Your task to perform on an android device: When is my next meeting? Image 0: 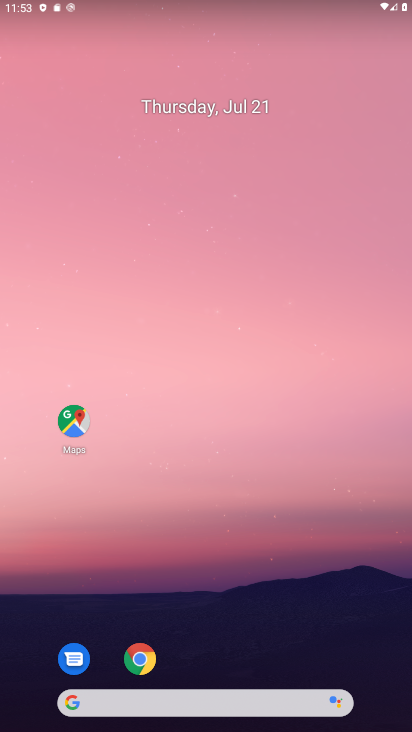
Step 0: drag from (208, 675) to (208, 174)
Your task to perform on an android device: When is my next meeting? Image 1: 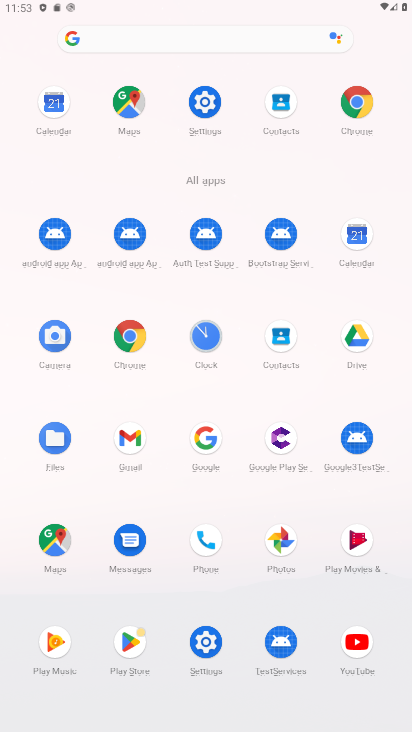
Step 1: click (198, 114)
Your task to perform on an android device: When is my next meeting? Image 2: 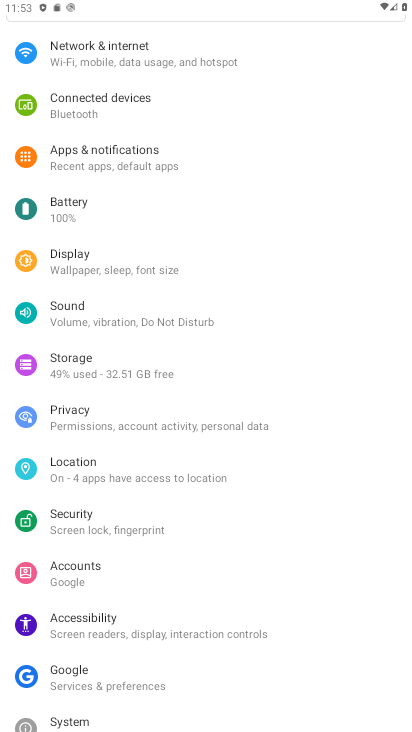
Step 2: task complete